Your task to perform on an android device: Go to privacy settings Image 0: 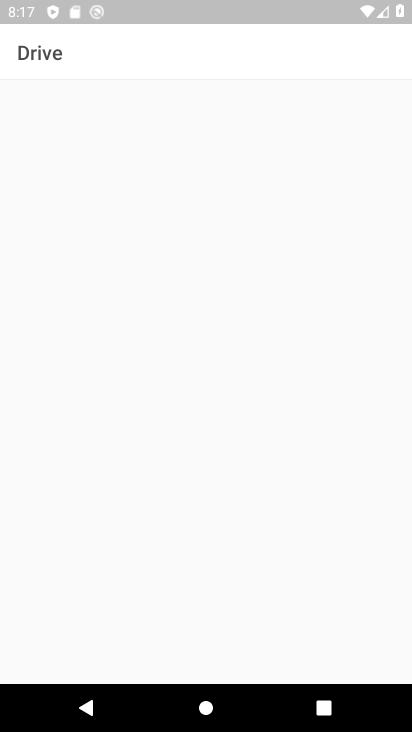
Step 0: press home button
Your task to perform on an android device: Go to privacy settings Image 1: 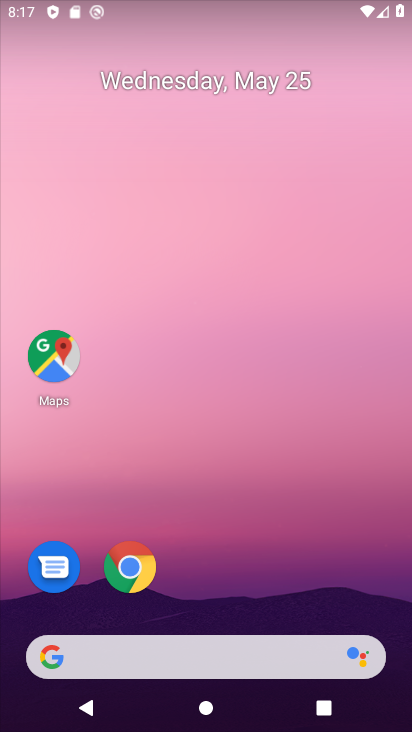
Step 1: drag from (252, 535) to (222, 40)
Your task to perform on an android device: Go to privacy settings Image 2: 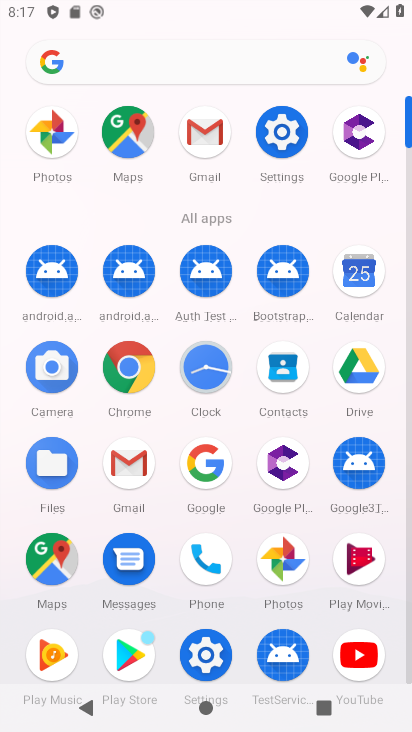
Step 2: click (277, 121)
Your task to perform on an android device: Go to privacy settings Image 3: 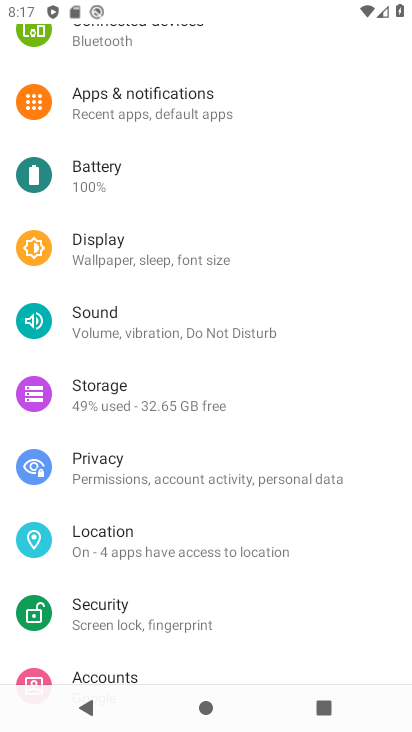
Step 3: click (218, 478)
Your task to perform on an android device: Go to privacy settings Image 4: 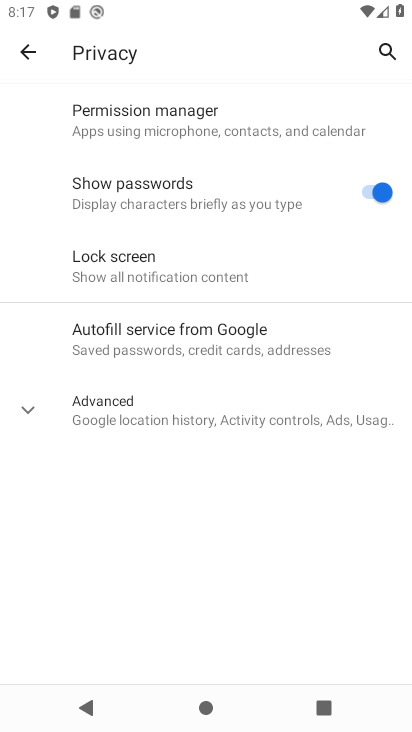
Step 4: task complete